Your task to perform on an android device: Open Android settings Image 0: 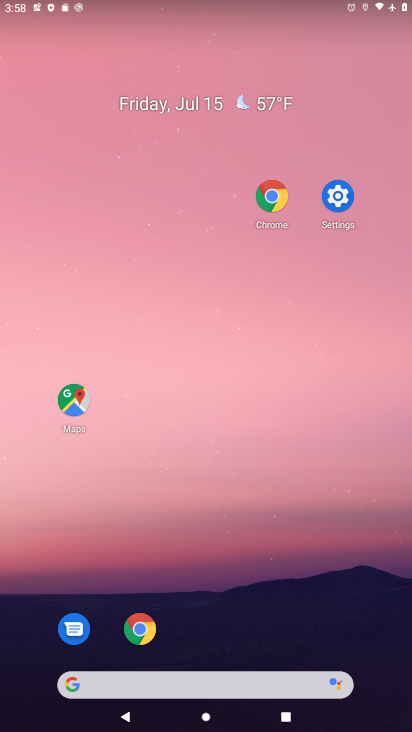
Step 0: drag from (292, 578) to (238, 77)
Your task to perform on an android device: Open Android settings Image 1: 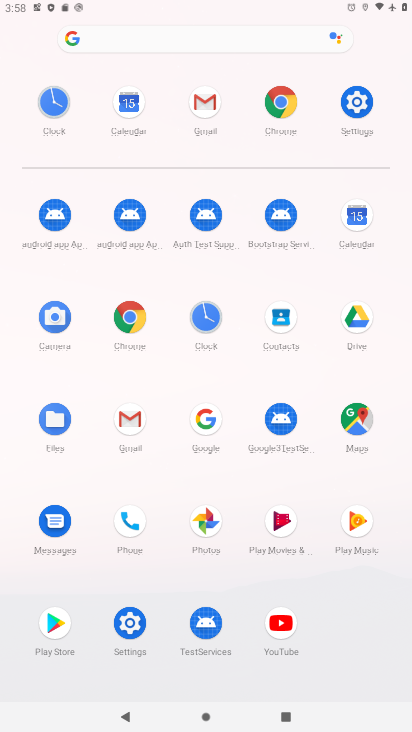
Step 1: click (126, 627)
Your task to perform on an android device: Open Android settings Image 2: 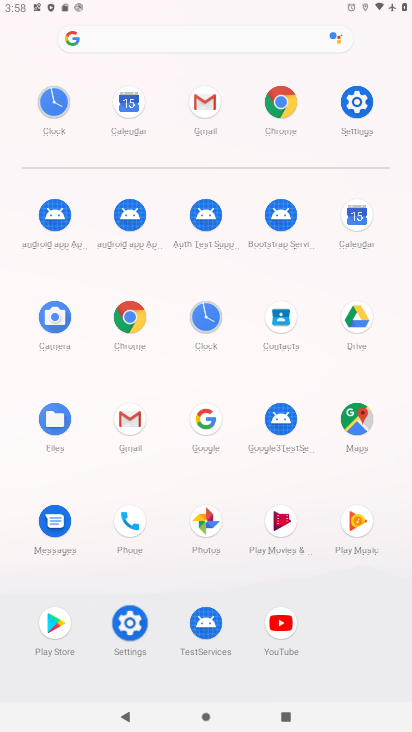
Step 2: click (127, 628)
Your task to perform on an android device: Open Android settings Image 3: 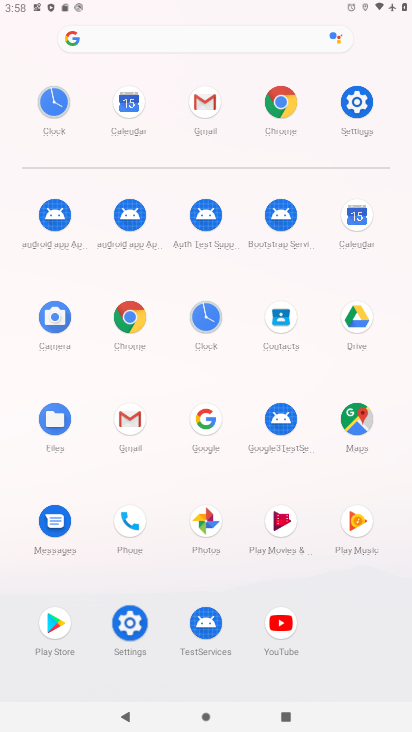
Step 3: click (128, 632)
Your task to perform on an android device: Open Android settings Image 4: 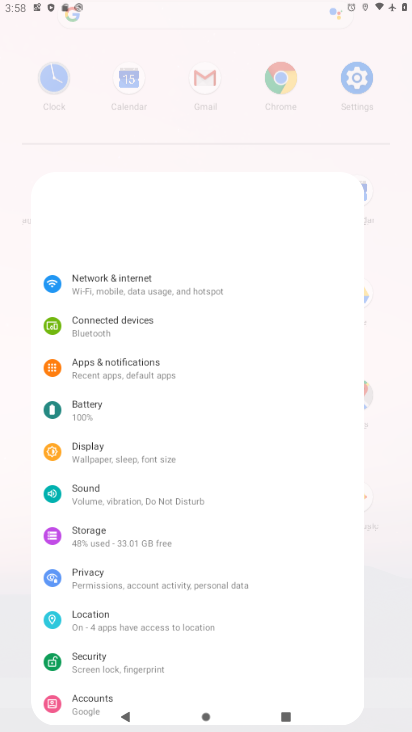
Step 4: click (129, 633)
Your task to perform on an android device: Open Android settings Image 5: 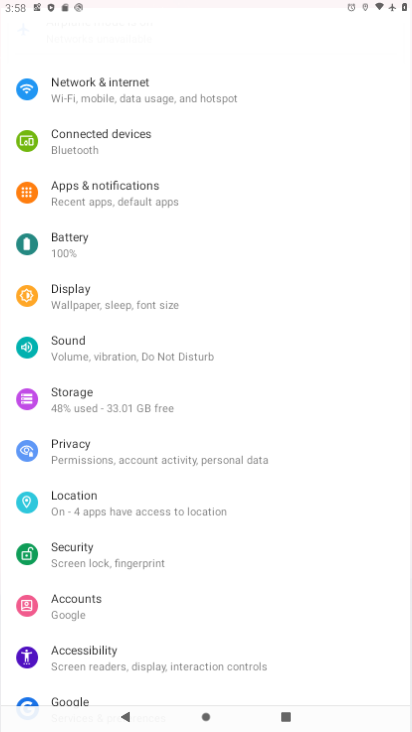
Step 5: click (128, 634)
Your task to perform on an android device: Open Android settings Image 6: 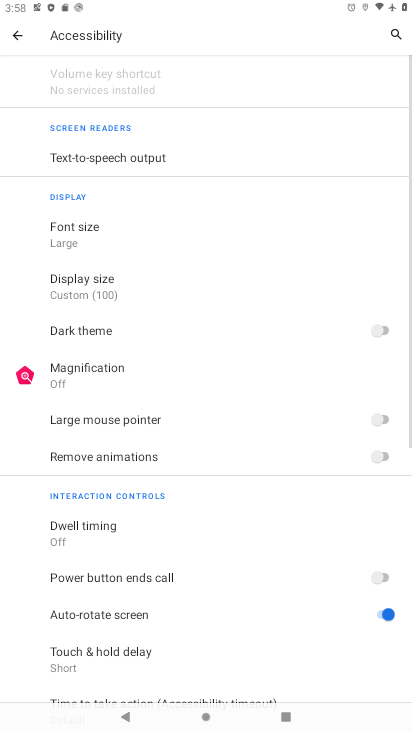
Step 6: click (18, 34)
Your task to perform on an android device: Open Android settings Image 7: 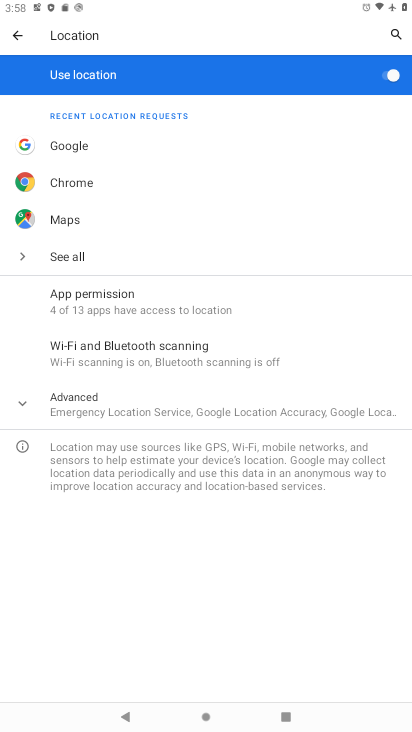
Step 7: click (6, 32)
Your task to perform on an android device: Open Android settings Image 8: 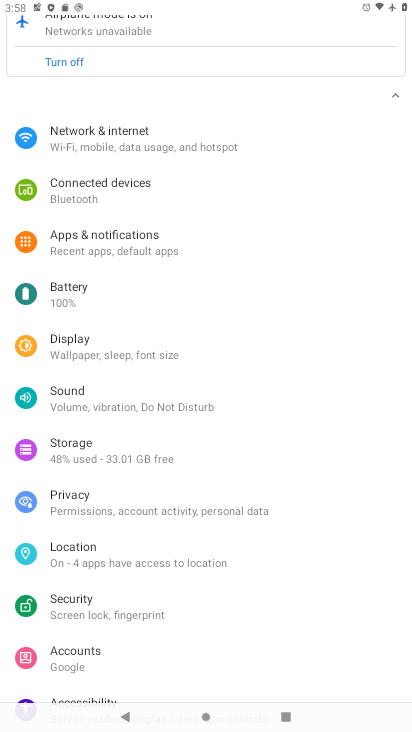
Step 8: drag from (76, 499) to (58, 180)
Your task to perform on an android device: Open Android settings Image 9: 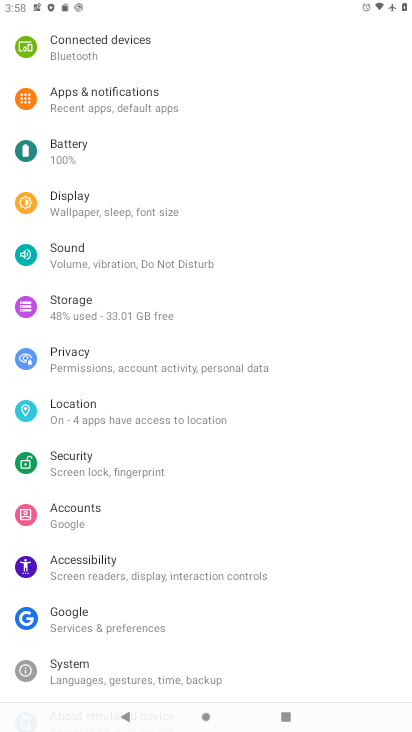
Step 9: drag from (170, 585) to (157, 250)
Your task to perform on an android device: Open Android settings Image 10: 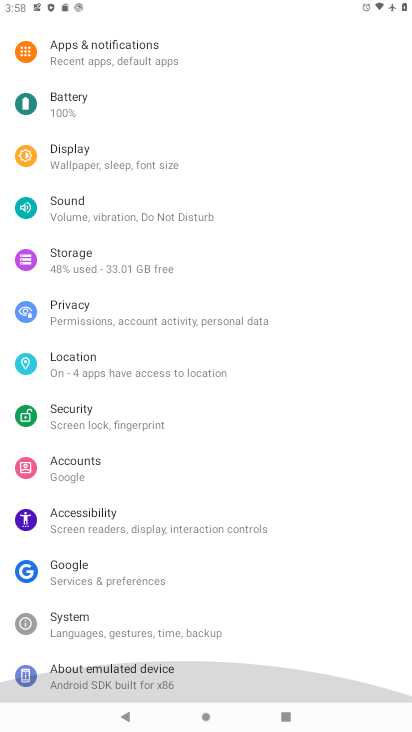
Step 10: drag from (168, 450) to (168, 164)
Your task to perform on an android device: Open Android settings Image 11: 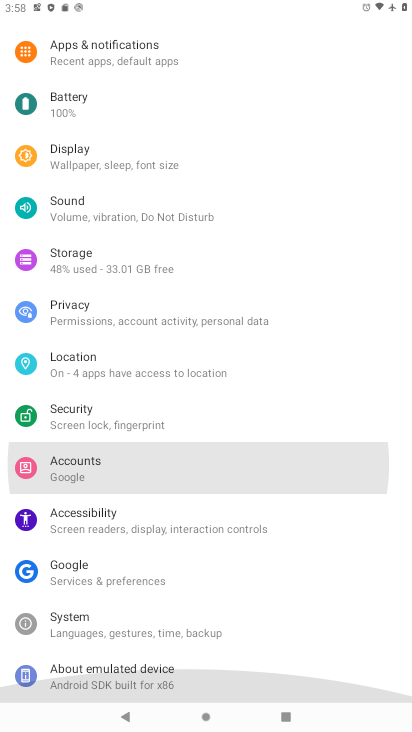
Step 11: drag from (159, 571) to (177, 146)
Your task to perform on an android device: Open Android settings Image 12: 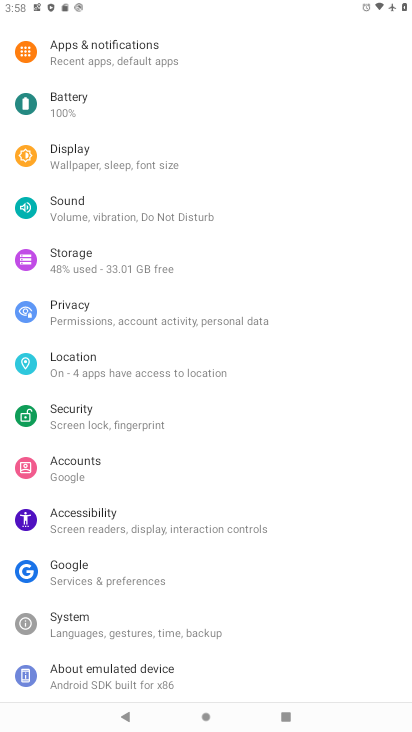
Step 12: click (101, 683)
Your task to perform on an android device: Open Android settings Image 13: 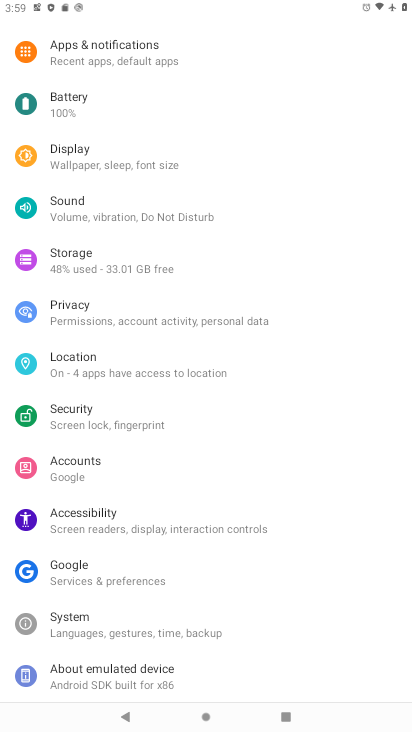
Step 13: click (138, 675)
Your task to perform on an android device: Open Android settings Image 14: 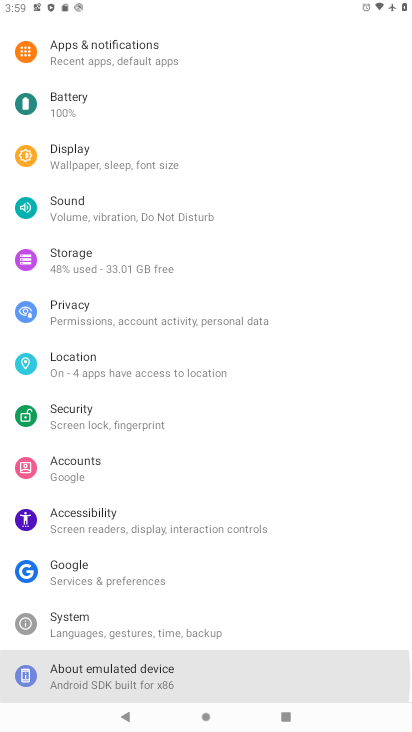
Step 14: click (138, 675)
Your task to perform on an android device: Open Android settings Image 15: 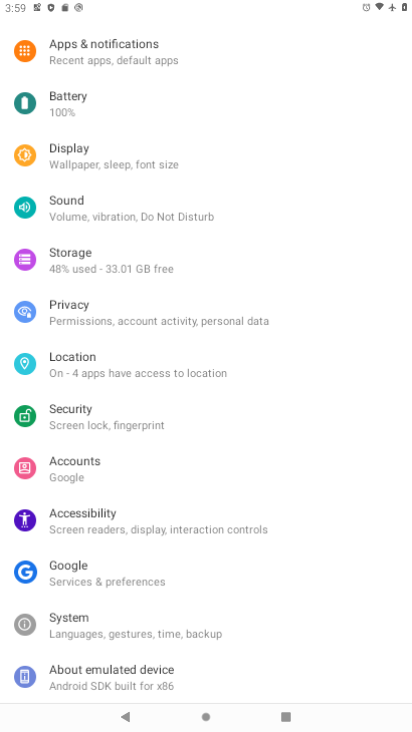
Step 15: click (138, 675)
Your task to perform on an android device: Open Android settings Image 16: 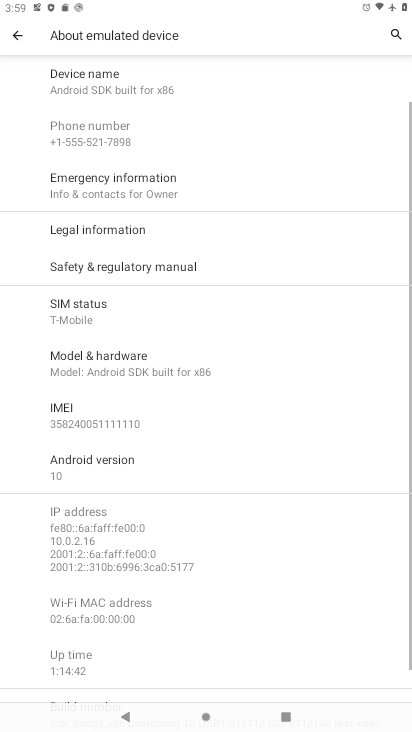
Step 16: click (138, 675)
Your task to perform on an android device: Open Android settings Image 17: 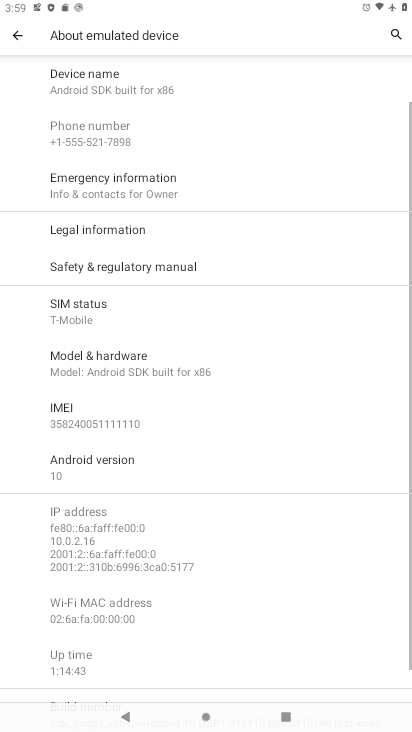
Step 17: task complete